Your task to perform on an android device: turn off sleep mode Image 0: 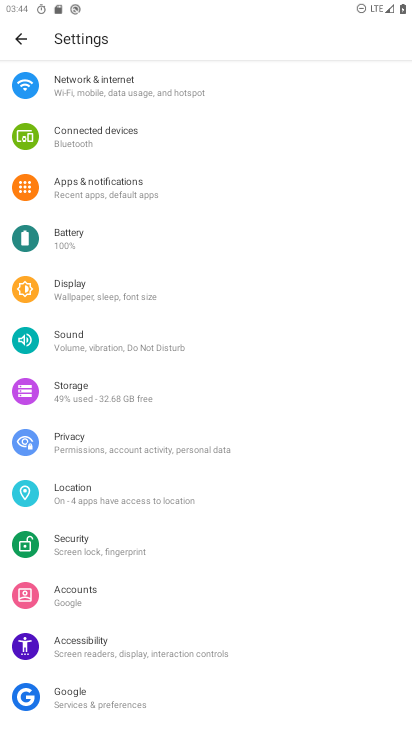
Step 0: click (103, 283)
Your task to perform on an android device: turn off sleep mode Image 1: 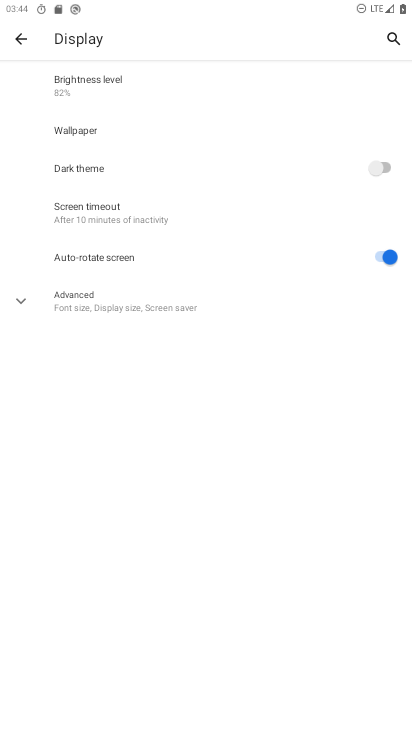
Step 1: click (122, 205)
Your task to perform on an android device: turn off sleep mode Image 2: 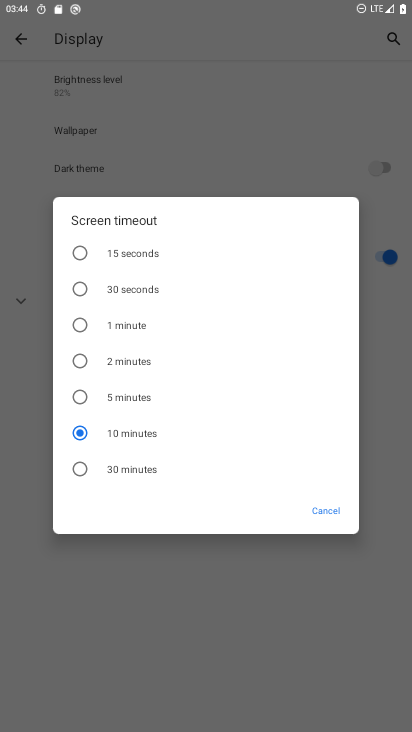
Step 2: task complete